Your task to perform on an android device: Add bose quietcomfort 35 to the cart on newegg Image 0: 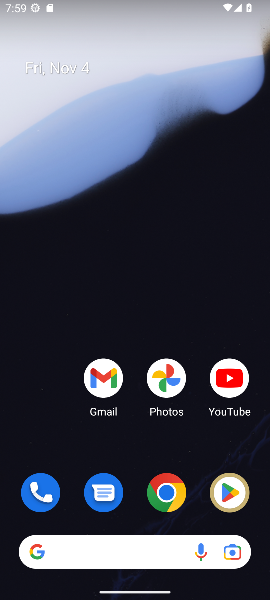
Step 0: drag from (139, 448) to (137, 5)
Your task to perform on an android device: Add bose quietcomfort 35 to the cart on newegg Image 1: 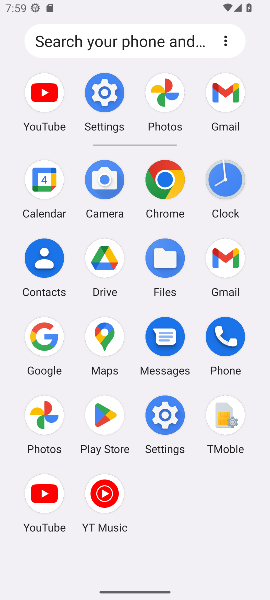
Step 1: click (169, 179)
Your task to perform on an android device: Add bose quietcomfort 35 to the cart on newegg Image 2: 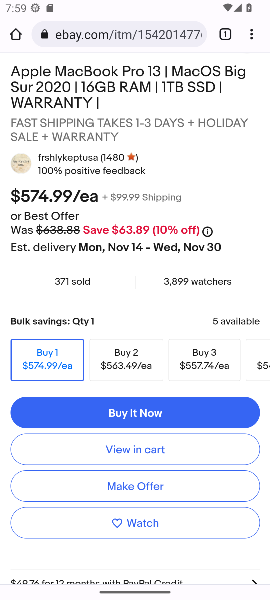
Step 2: click (141, 35)
Your task to perform on an android device: Add bose quietcomfort 35 to the cart on newegg Image 3: 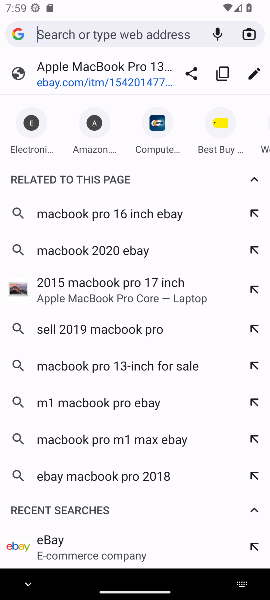
Step 3: type "newegg.com"
Your task to perform on an android device: Add bose quietcomfort 35 to the cart on newegg Image 4: 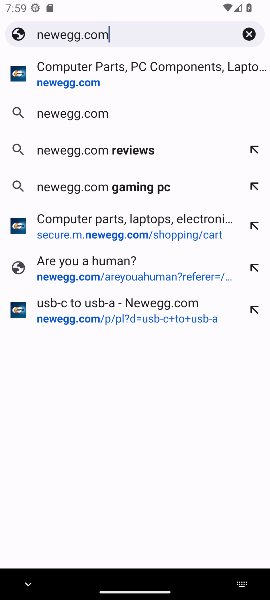
Step 4: press enter
Your task to perform on an android device: Add bose quietcomfort 35 to the cart on newegg Image 5: 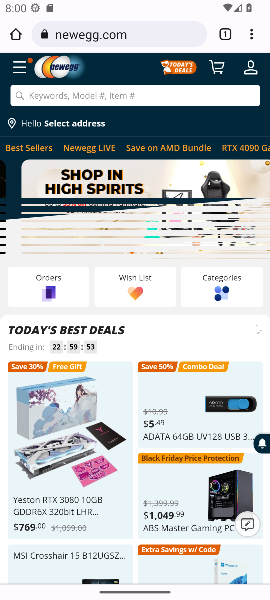
Step 5: click (161, 94)
Your task to perform on an android device: Add bose quietcomfort 35 to the cart on newegg Image 6: 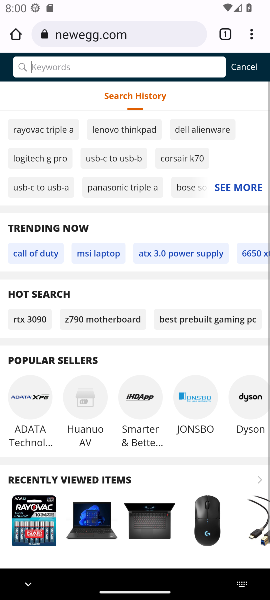
Step 6: type "bose quietcomfort 35"
Your task to perform on an android device: Add bose quietcomfort 35 to the cart on newegg Image 7: 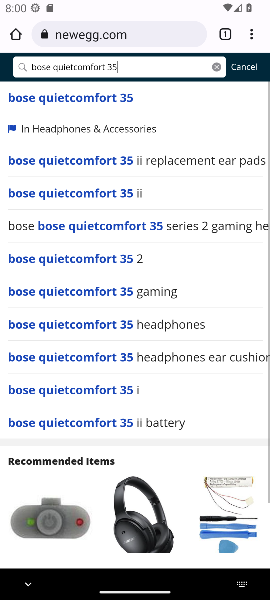
Step 7: press enter
Your task to perform on an android device: Add bose quietcomfort 35 to the cart on newegg Image 8: 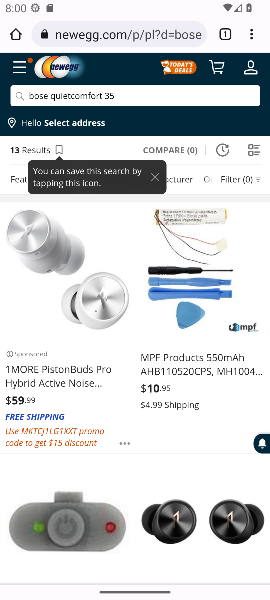
Step 8: drag from (208, 428) to (213, 235)
Your task to perform on an android device: Add bose quietcomfort 35 to the cart on newegg Image 9: 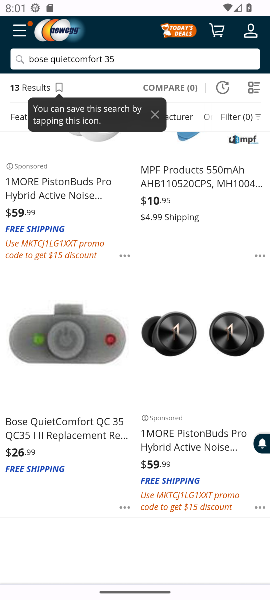
Step 9: click (79, 434)
Your task to perform on an android device: Add bose quietcomfort 35 to the cart on newegg Image 10: 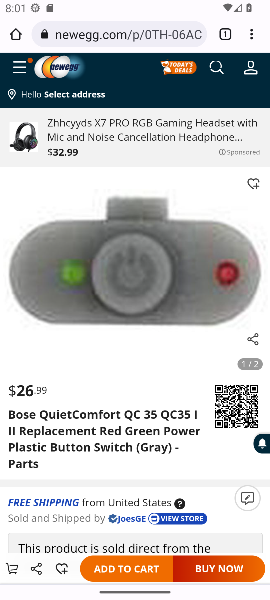
Step 10: click (142, 564)
Your task to perform on an android device: Add bose quietcomfort 35 to the cart on newegg Image 11: 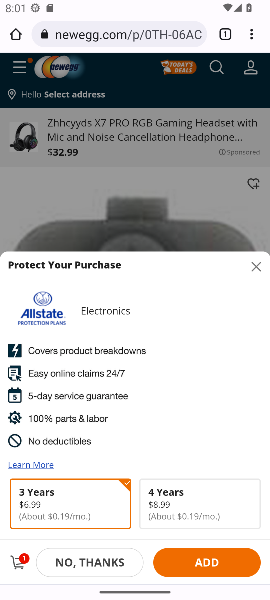
Step 11: task complete